Your task to perform on an android device: Open Google Maps Image 0: 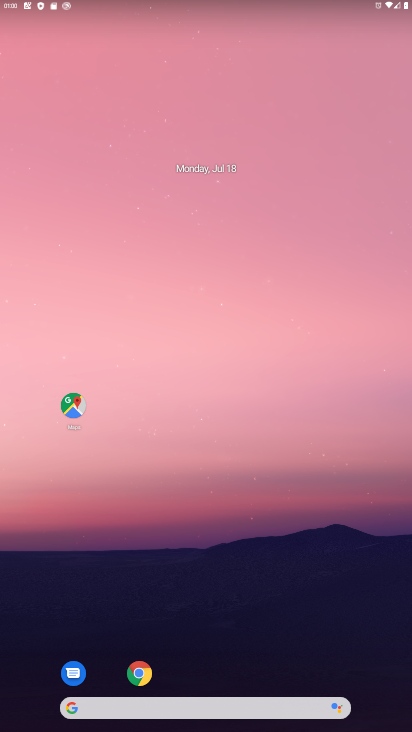
Step 0: click (70, 422)
Your task to perform on an android device: Open Google Maps Image 1: 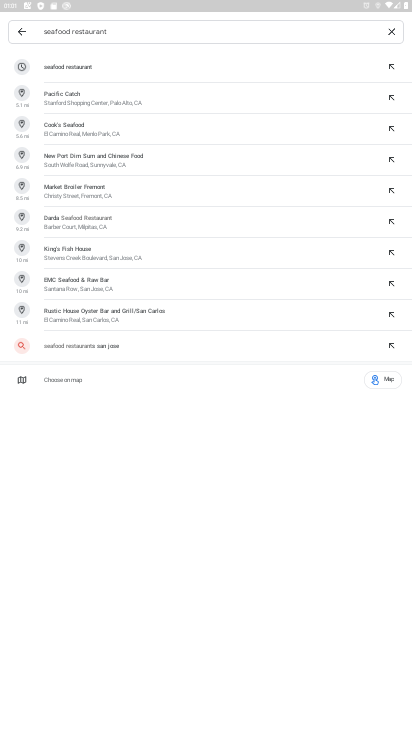
Step 1: task complete